Your task to perform on an android device: turn smart compose on in the gmail app Image 0: 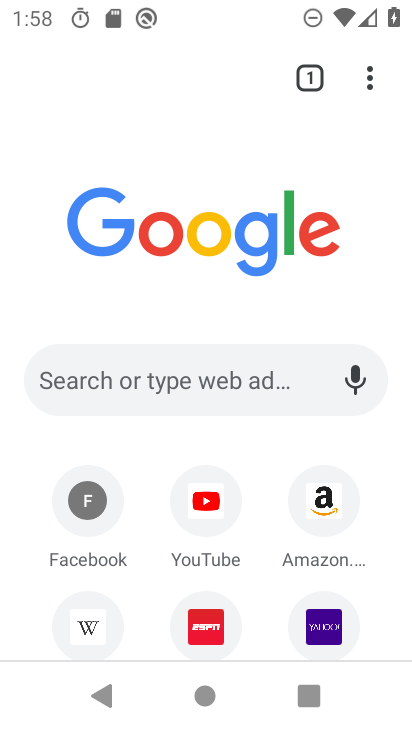
Step 0: press home button
Your task to perform on an android device: turn smart compose on in the gmail app Image 1: 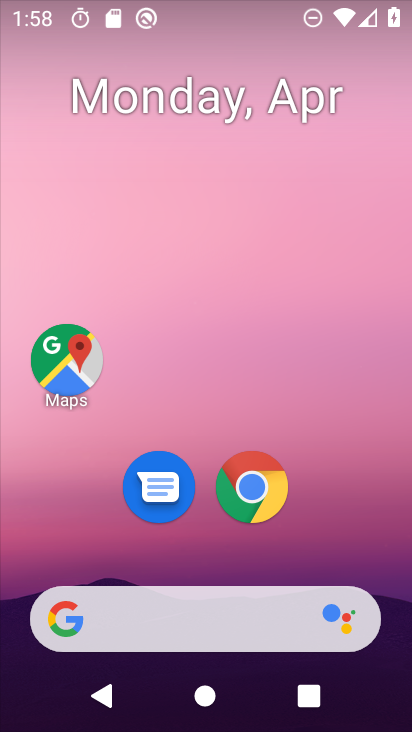
Step 1: drag from (288, 638) to (314, 212)
Your task to perform on an android device: turn smart compose on in the gmail app Image 2: 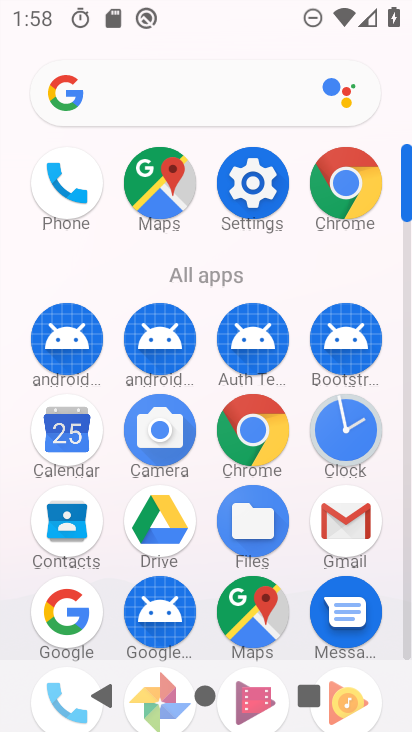
Step 2: click (340, 520)
Your task to perform on an android device: turn smart compose on in the gmail app Image 3: 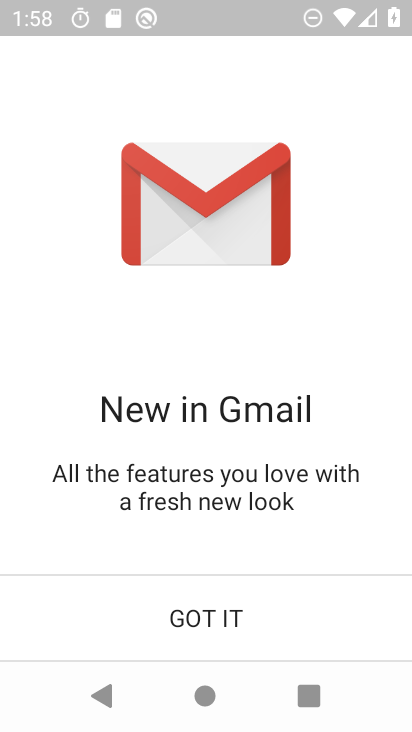
Step 3: click (218, 621)
Your task to perform on an android device: turn smart compose on in the gmail app Image 4: 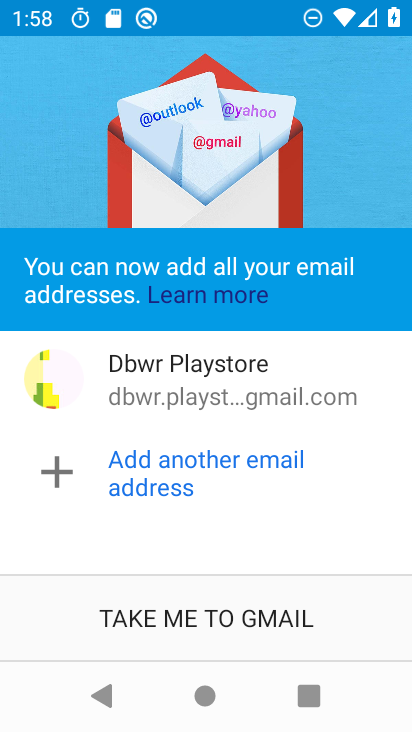
Step 4: click (222, 614)
Your task to perform on an android device: turn smart compose on in the gmail app Image 5: 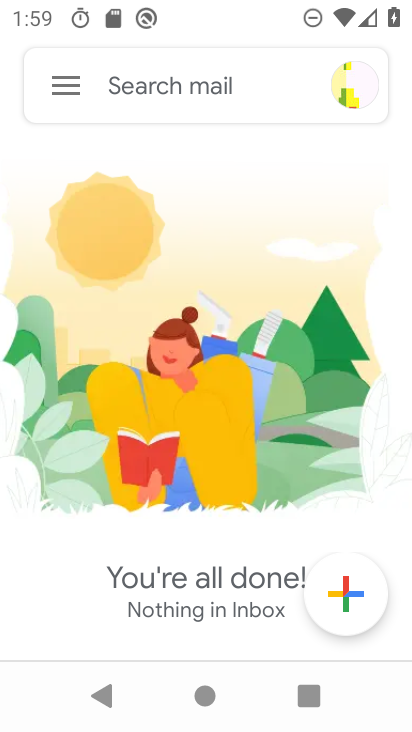
Step 5: click (66, 90)
Your task to perform on an android device: turn smart compose on in the gmail app Image 6: 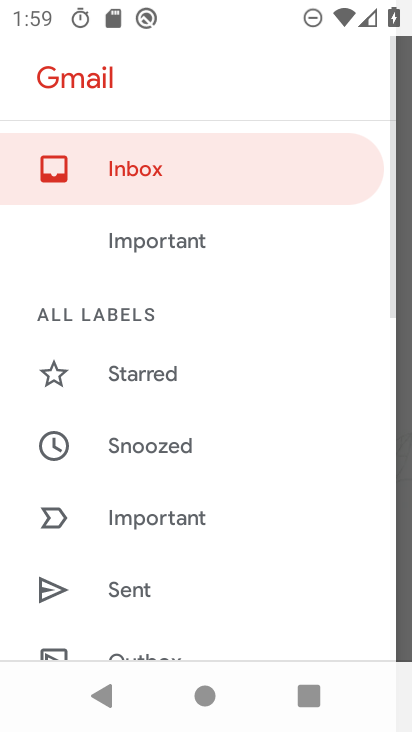
Step 6: drag from (107, 589) to (190, 373)
Your task to perform on an android device: turn smart compose on in the gmail app Image 7: 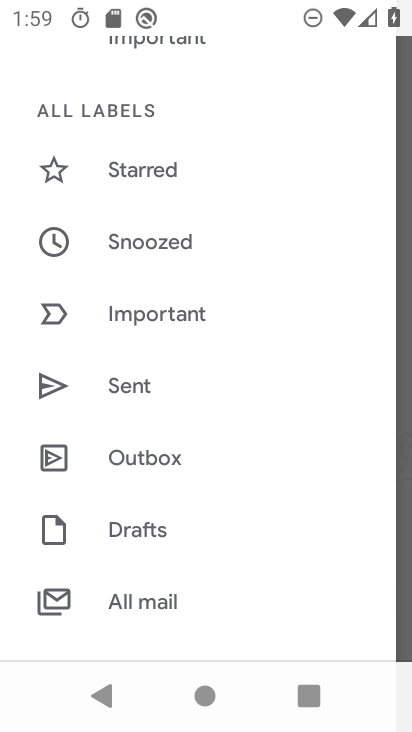
Step 7: drag from (146, 571) to (225, 387)
Your task to perform on an android device: turn smart compose on in the gmail app Image 8: 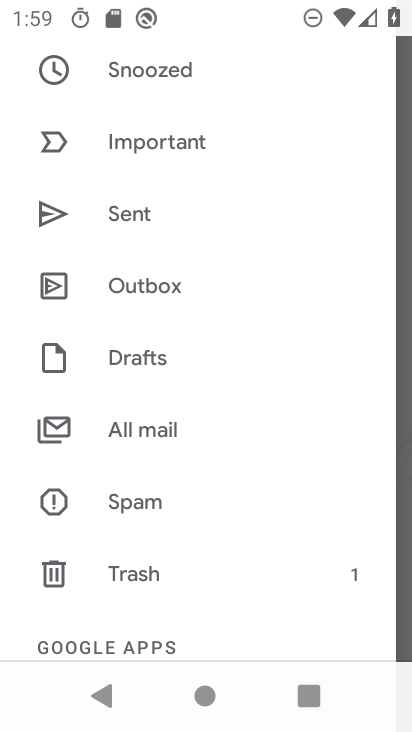
Step 8: drag from (182, 554) to (216, 272)
Your task to perform on an android device: turn smart compose on in the gmail app Image 9: 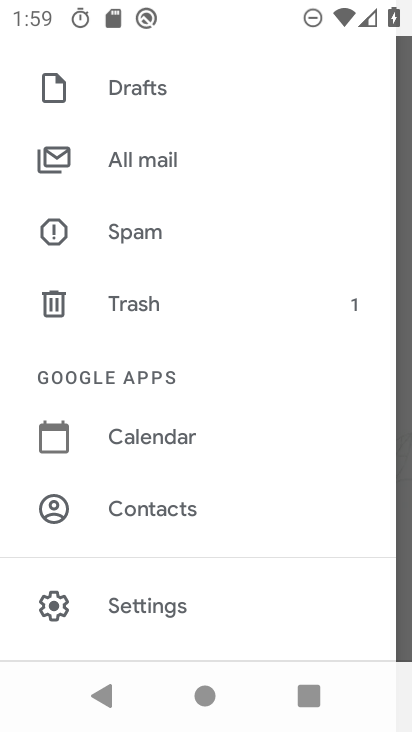
Step 9: click (161, 600)
Your task to perform on an android device: turn smart compose on in the gmail app Image 10: 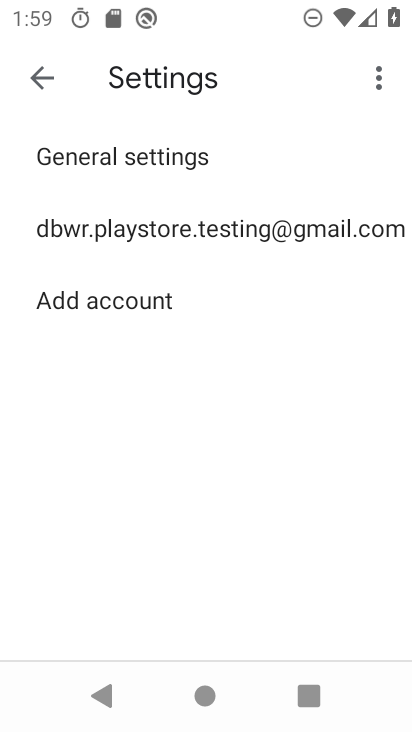
Step 10: click (184, 236)
Your task to perform on an android device: turn smart compose on in the gmail app Image 11: 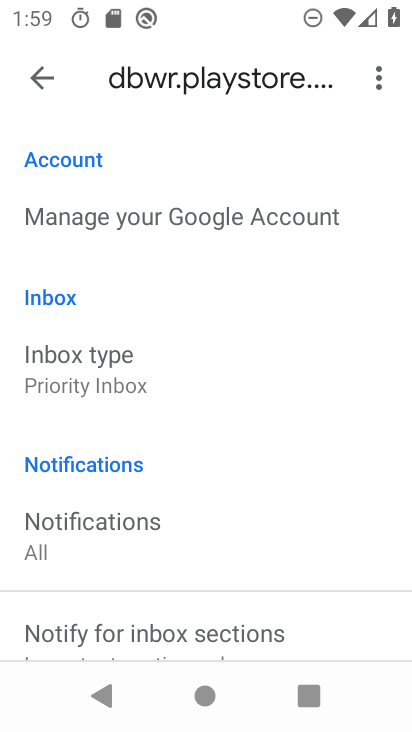
Step 11: drag from (176, 533) to (238, 353)
Your task to perform on an android device: turn smart compose on in the gmail app Image 12: 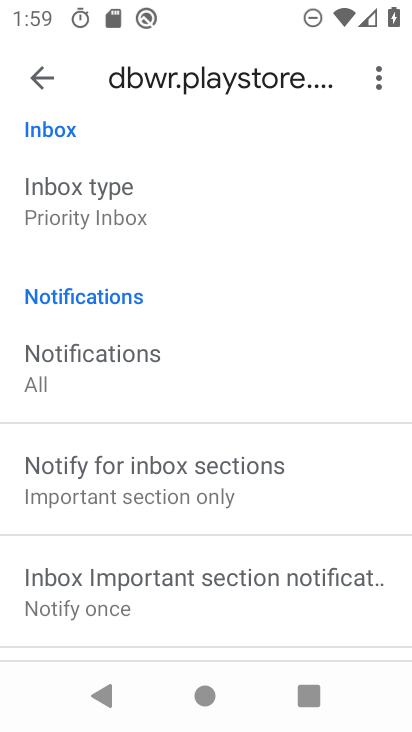
Step 12: drag from (256, 599) to (243, 364)
Your task to perform on an android device: turn smart compose on in the gmail app Image 13: 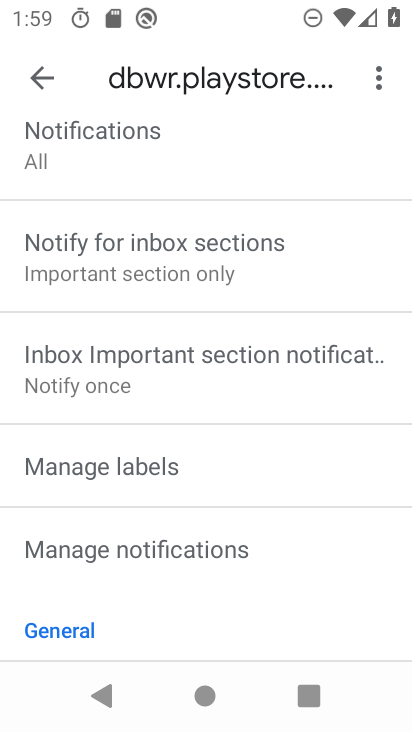
Step 13: drag from (161, 543) to (259, 246)
Your task to perform on an android device: turn smart compose on in the gmail app Image 14: 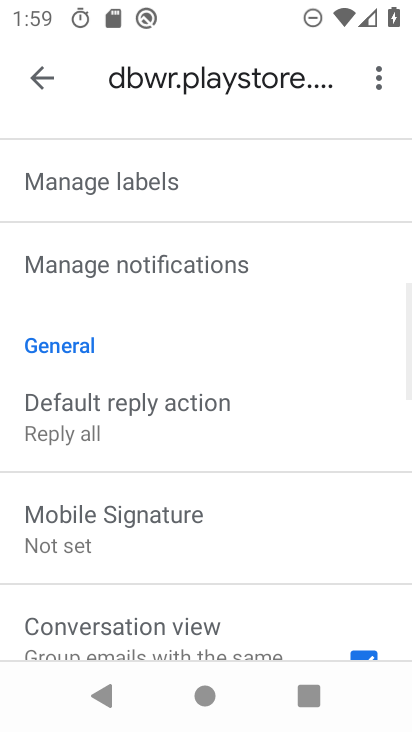
Step 14: drag from (181, 589) to (247, 396)
Your task to perform on an android device: turn smart compose on in the gmail app Image 15: 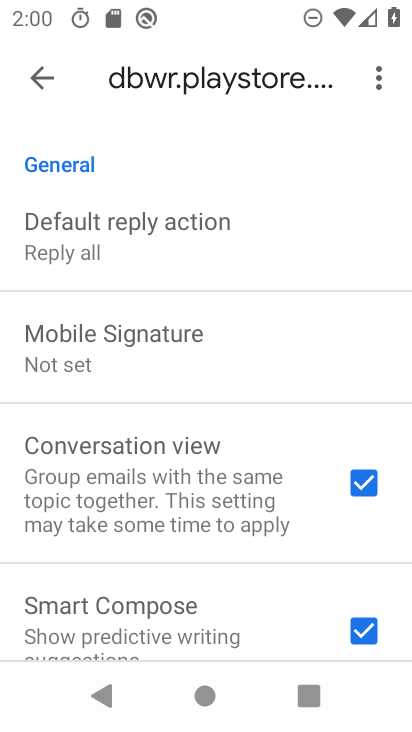
Step 15: drag from (184, 540) to (263, 277)
Your task to perform on an android device: turn smart compose on in the gmail app Image 16: 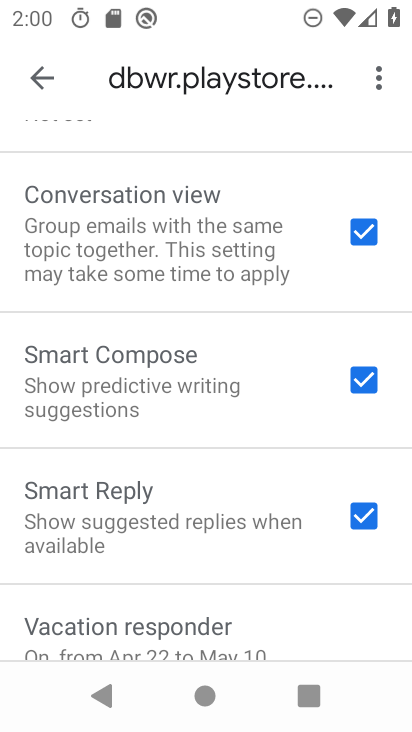
Step 16: click (368, 391)
Your task to perform on an android device: turn smart compose on in the gmail app Image 17: 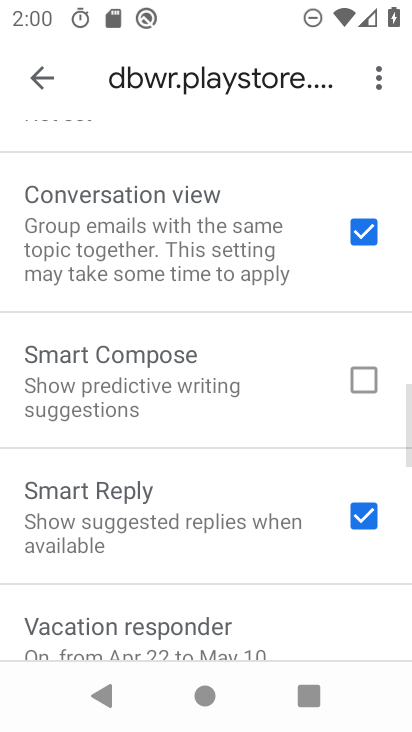
Step 17: click (369, 387)
Your task to perform on an android device: turn smart compose on in the gmail app Image 18: 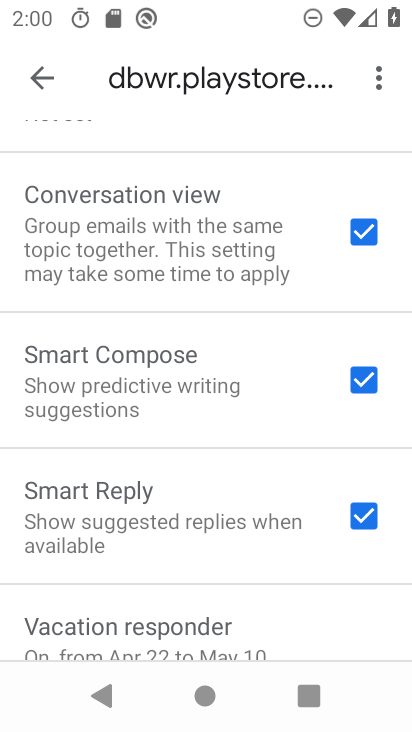
Step 18: task complete